Your task to perform on an android device: Open the stopwatch Image 0: 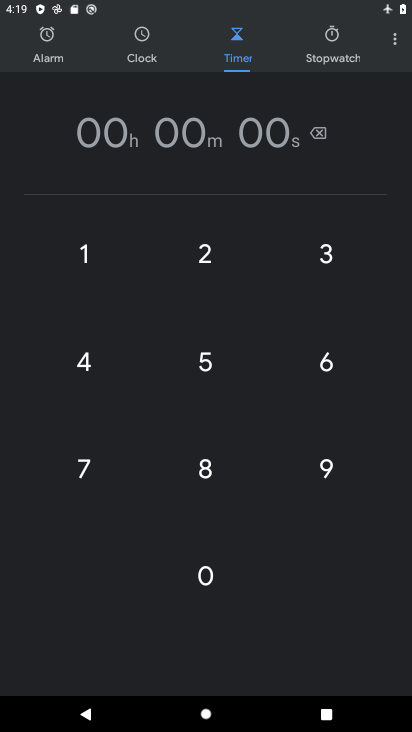
Step 0: press home button
Your task to perform on an android device: Open the stopwatch Image 1: 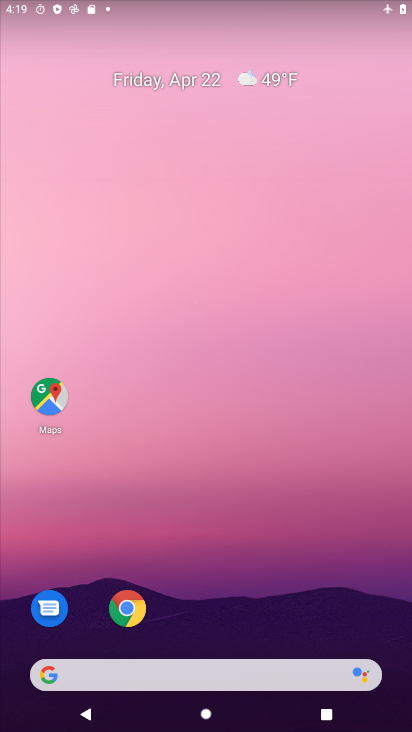
Step 1: drag from (252, 564) to (250, 71)
Your task to perform on an android device: Open the stopwatch Image 2: 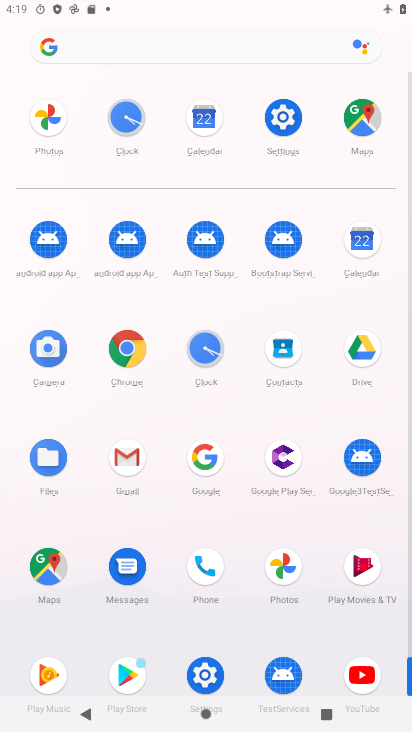
Step 2: click (126, 108)
Your task to perform on an android device: Open the stopwatch Image 3: 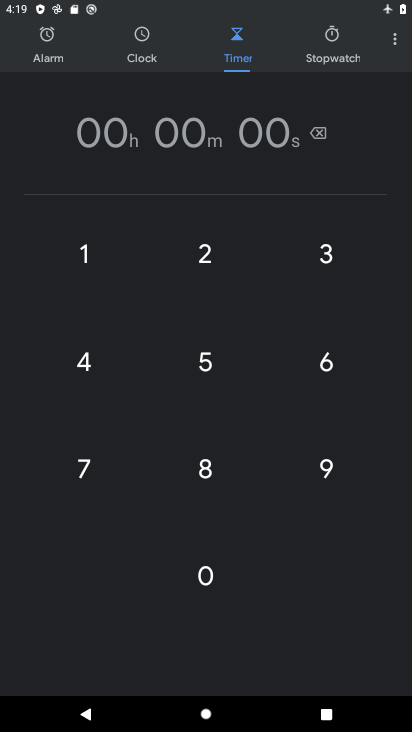
Step 3: click (341, 35)
Your task to perform on an android device: Open the stopwatch Image 4: 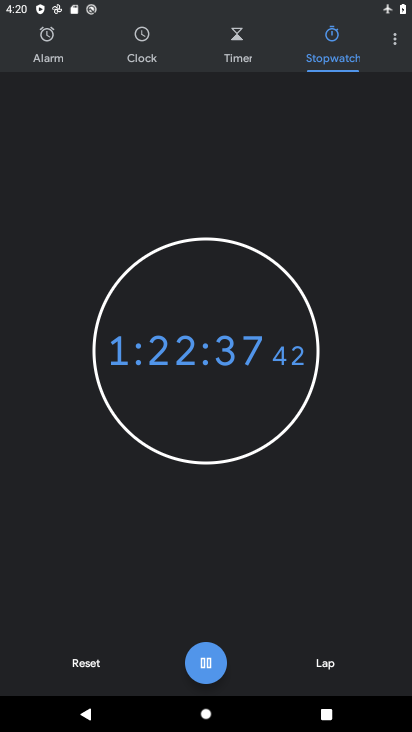
Step 4: task complete